Your task to perform on an android device: Open Google Chrome Image 0: 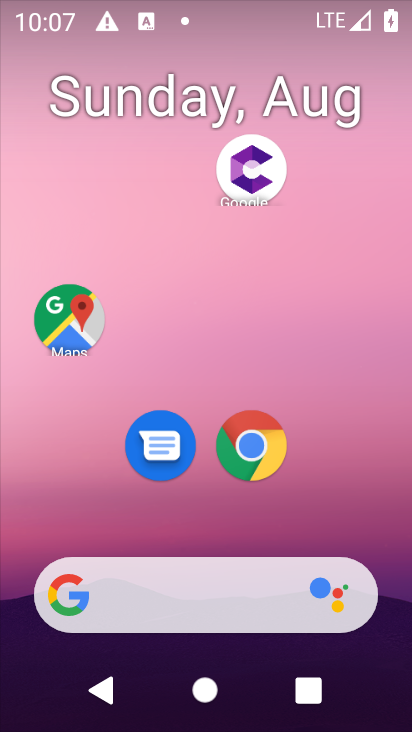
Step 0: click (247, 438)
Your task to perform on an android device: Open Google Chrome Image 1: 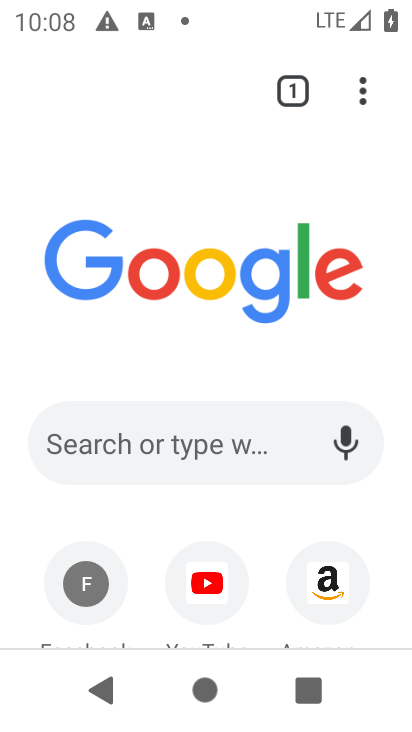
Step 1: task complete